Your task to perform on an android device: toggle javascript in the chrome app Image 0: 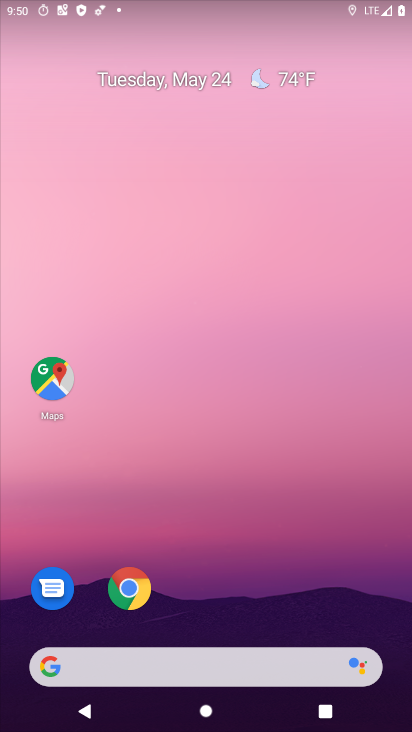
Step 0: drag from (272, 568) to (216, 44)
Your task to perform on an android device: toggle javascript in the chrome app Image 1: 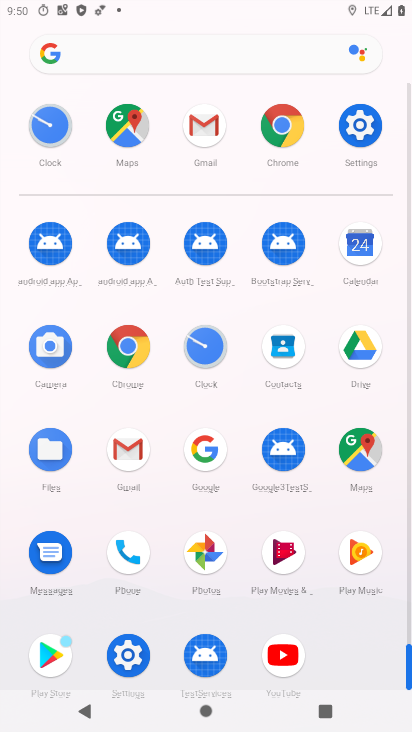
Step 1: drag from (6, 586) to (15, 230)
Your task to perform on an android device: toggle javascript in the chrome app Image 2: 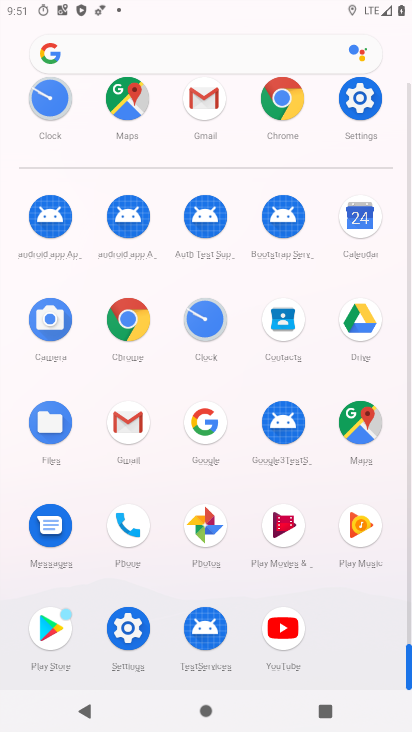
Step 2: click (128, 316)
Your task to perform on an android device: toggle javascript in the chrome app Image 3: 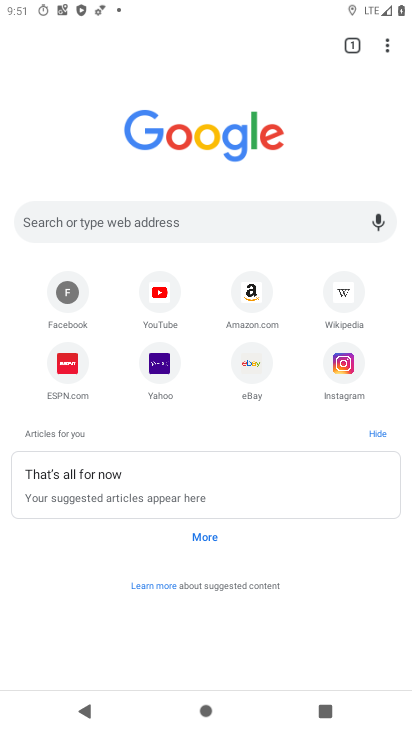
Step 3: drag from (383, 49) to (210, 383)
Your task to perform on an android device: toggle javascript in the chrome app Image 4: 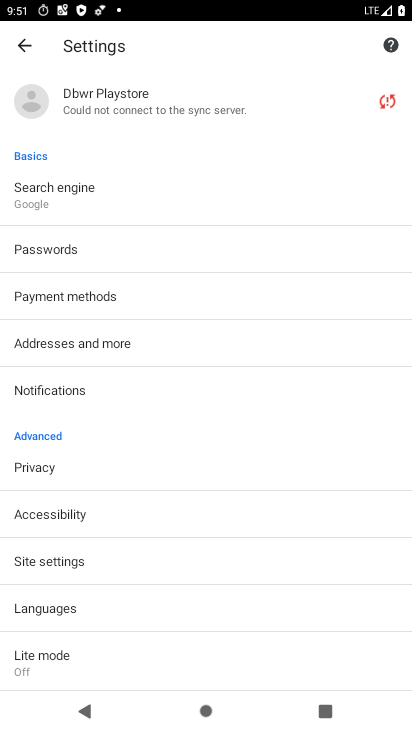
Step 4: click (86, 559)
Your task to perform on an android device: toggle javascript in the chrome app Image 5: 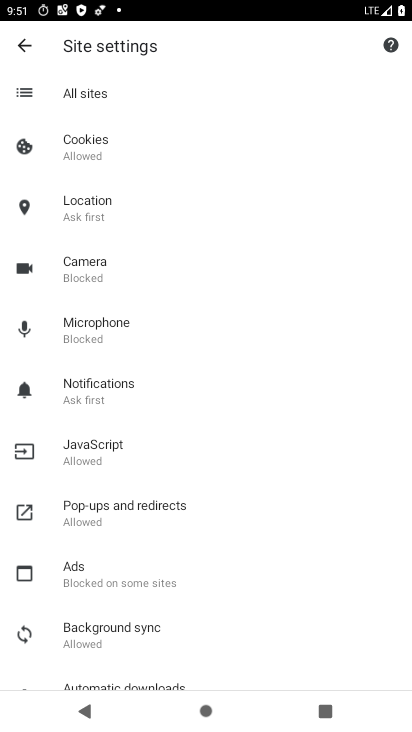
Step 5: drag from (240, 533) to (280, 174)
Your task to perform on an android device: toggle javascript in the chrome app Image 6: 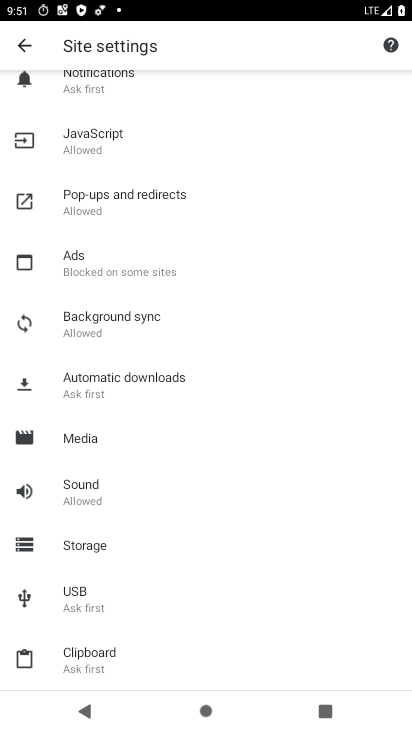
Step 6: click (115, 131)
Your task to perform on an android device: toggle javascript in the chrome app Image 7: 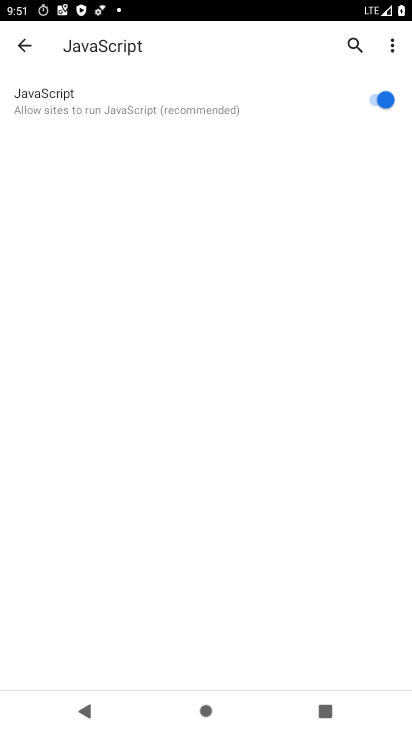
Step 7: click (381, 94)
Your task to perform on an android device: toggle javascript in the chrome app Image 8: 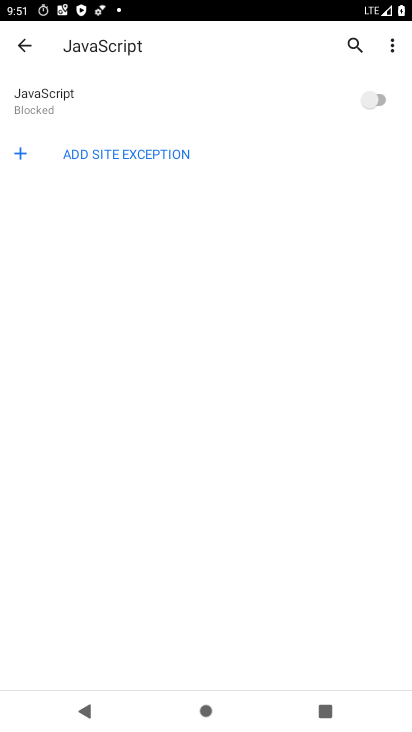
Step 8: task complete